Your task to perform on an android device: turn off smart reply in the gmail app Image 0: 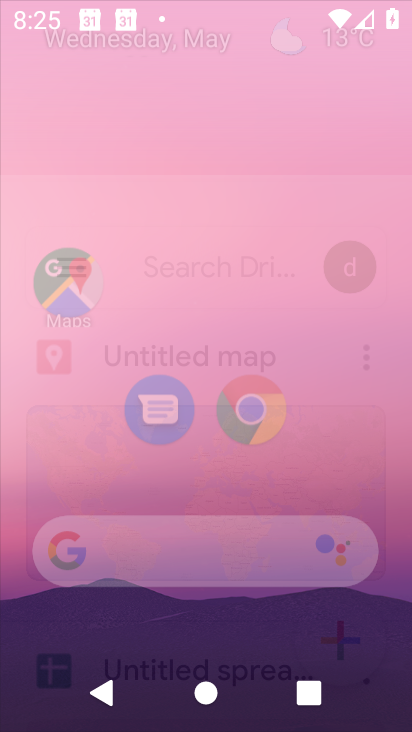
Step 0: click (245, 123)
Your task to perform on an android device: turn off smart reply in the gmail app Image 1: 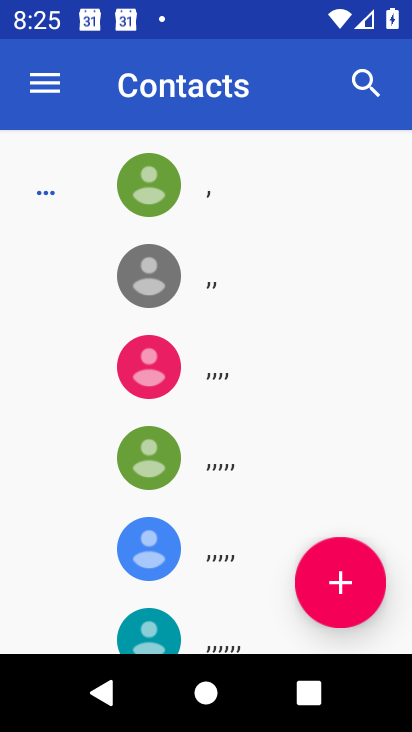
Step 1: press home button
Your task to perform on an android device: turn off smart reply in the gmail app Image 2: 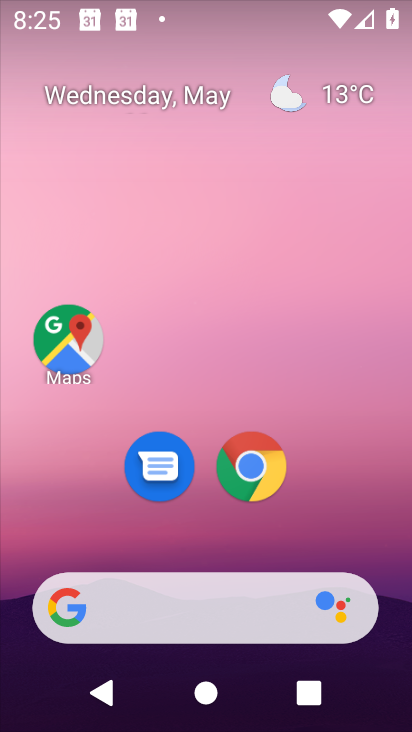
Step 2: drag from (213, 541) to (241, 47)
Your task to perform on an android device: turn off smart reply in the gmail app Image 3: 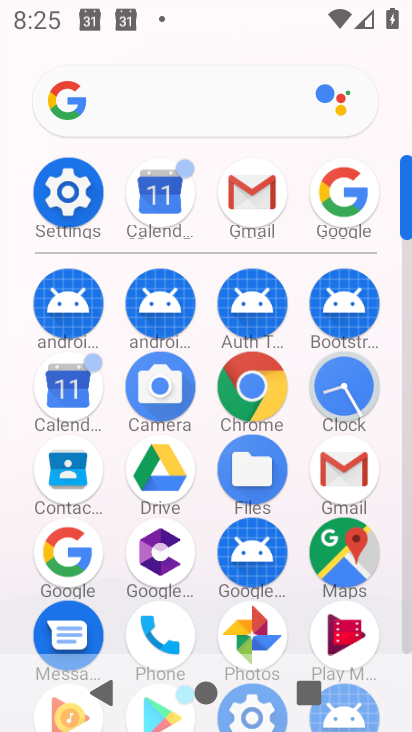
Step 3: click (258, 196)
Your task to perform on an android device: turn off smart reply in the gmail app Image 4: 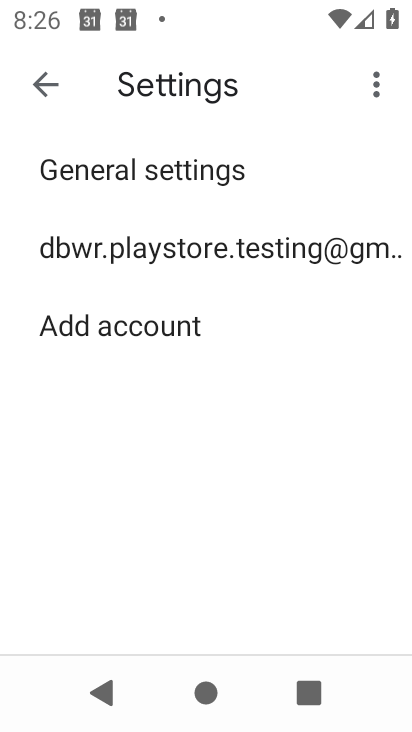
Step 4: click (166, 246)
Your task to perform on an android device: turn off smart reply in the gmail app Image 5: 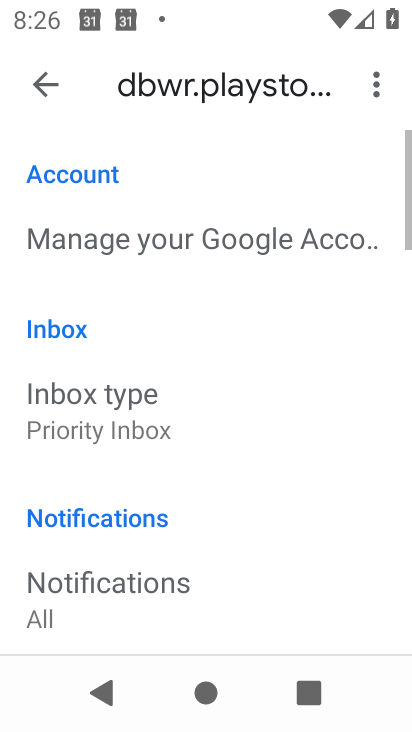
Step 5: drag from (208, 550) to (217, 141)
Your task to perform on an android device: turn off smart reply in the gmail app Image 6: 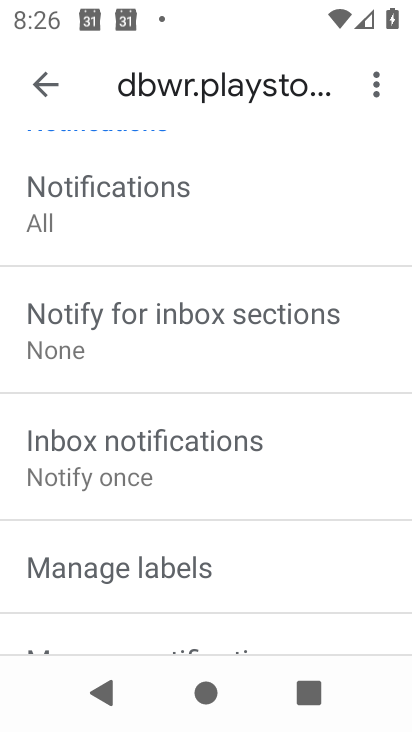
Step 6: drag from (216, 593) to (224, 162)
Your task to perform on an android device: turn off smart reply in the gmail app Image 7: 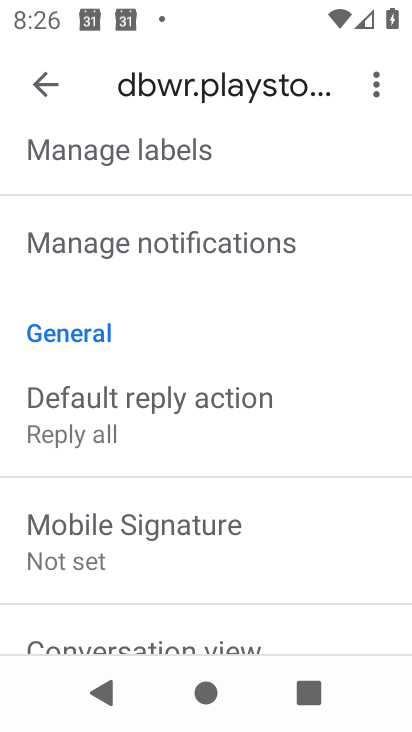
Step 7: drag from (179, 621) to (209, 110)
Your task to perform on an android device: turn off smart reply in the gmail app Image 8: 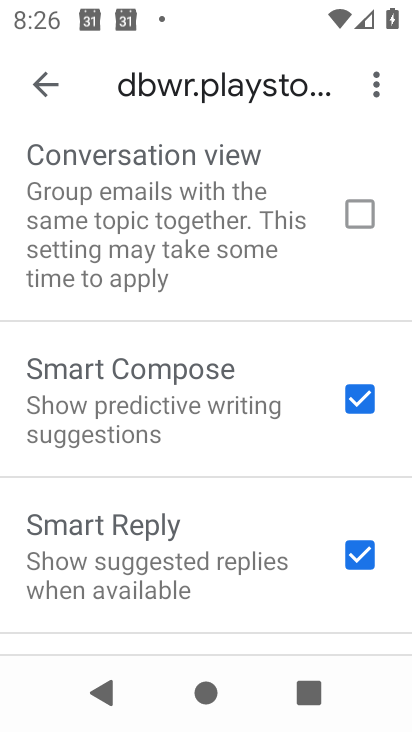
Step 8: click (362, 554)
Your task to perform on an android device: turn off smart reply in the gmail app Image 9: 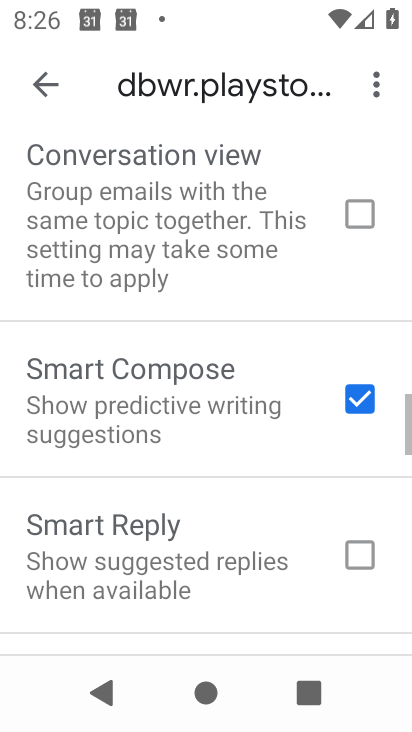
Step 9: task complete